Your task to perform on an android device: set the stopwatch Image 0: 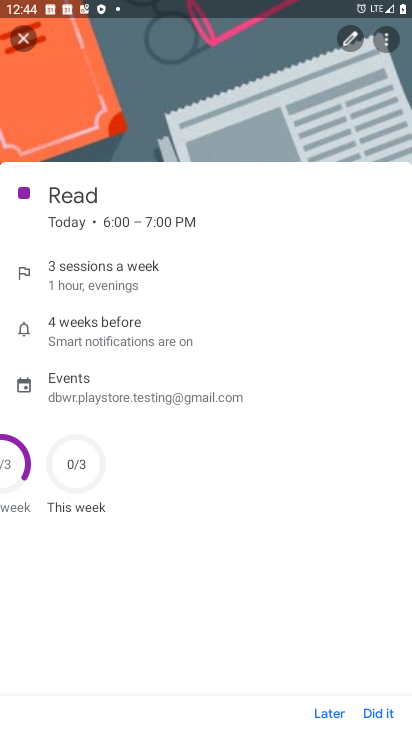
Step 0: press home button
Your task to perform on an android device: set the stopwatch Image 1: 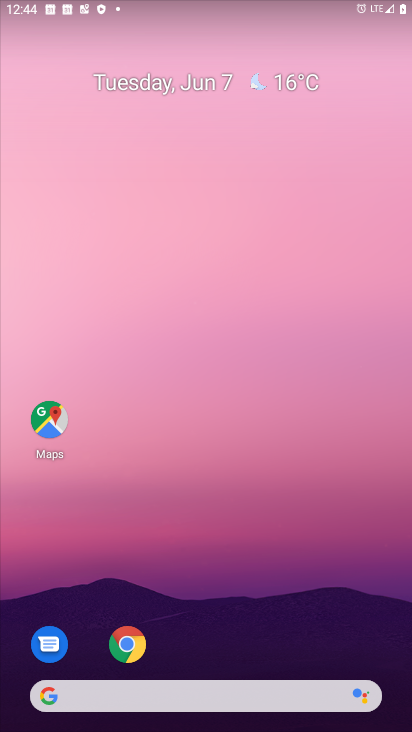
Step 1: drag from (32, 540) to (240, 54)
Your task to perform on an android device: set the stopwatch Image 2: 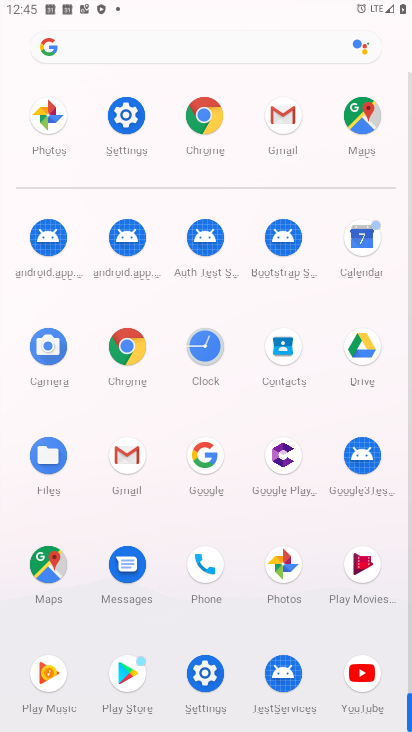
Step 2: click (209, 349)
Your task to perform on an android device: set the stopwatch Image 3: 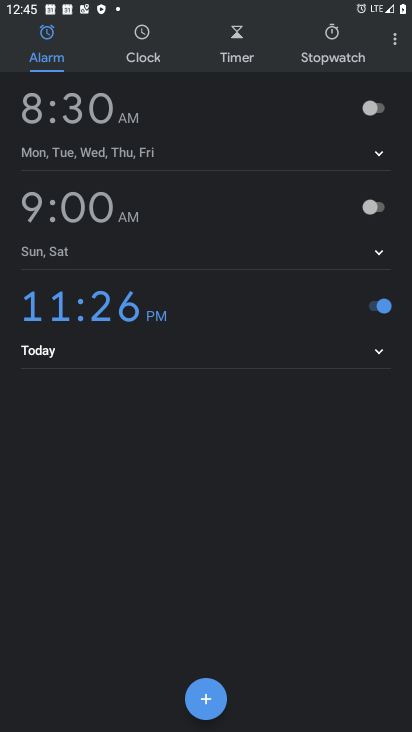
Step 3: click (340, 50)
Your task to perform on an android device: set the stopwatch Image 4: 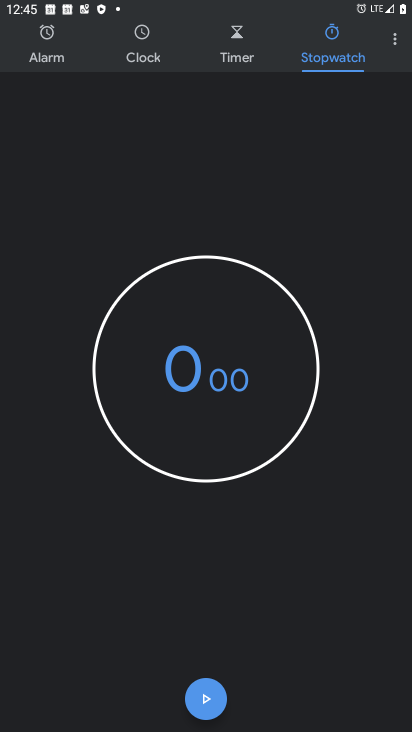
Step 4: click (206, 690)
Your task to perform on an android device: set the stopwatch Image 5: 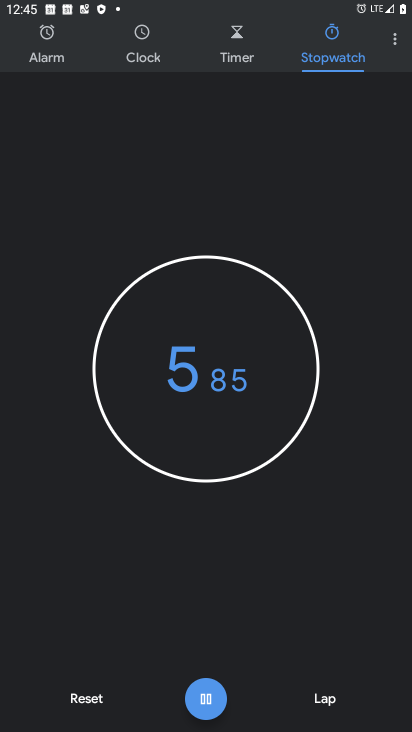
Step 5: task complete